Your task to perform on an android device: stop showing notifications on the lock screen Image 0: 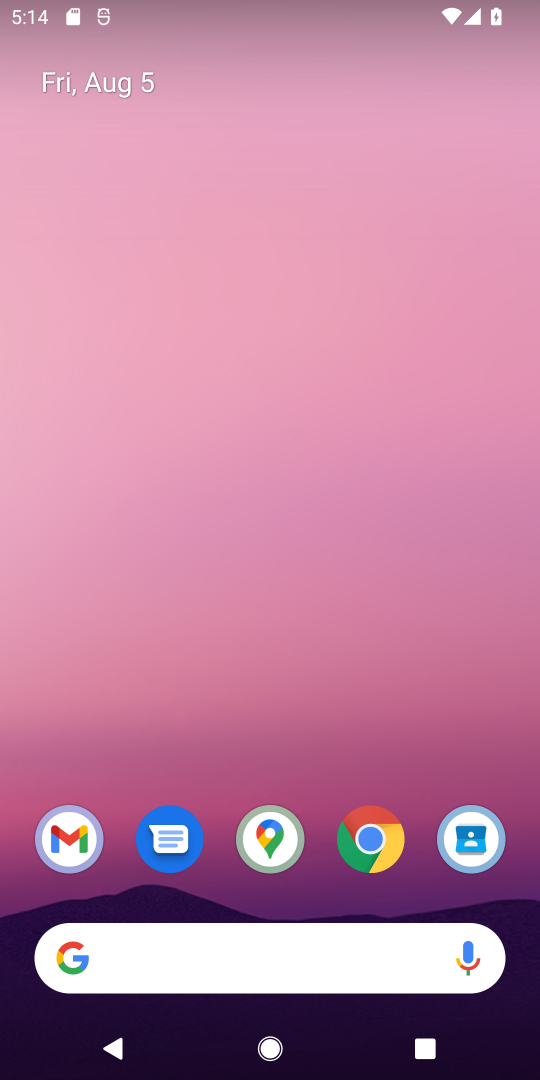
Step 0: press home button
Your task to perform on an android device: stop showing notifications on the lock screen Image 1: 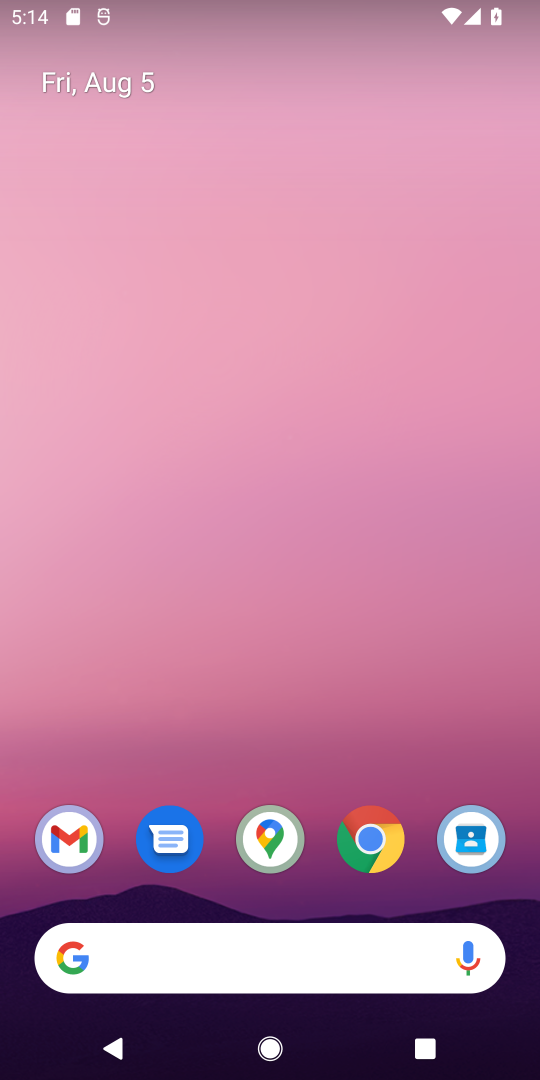
Step 1: drag from (305, 716) to (327, 58)
Your task to perform on an android device: stop showing notifications on the lock screen Image 2: 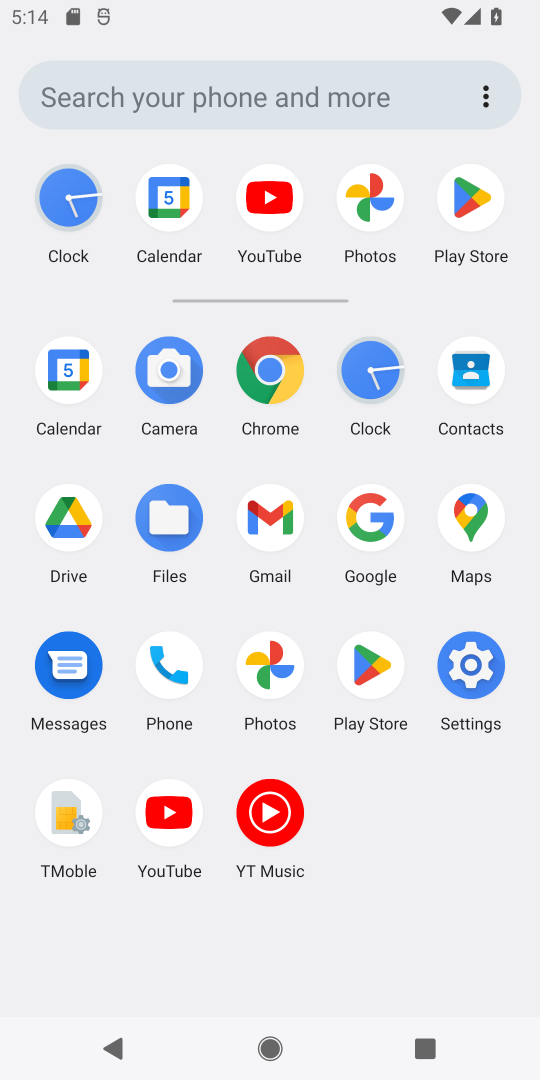
Step 2: click (436, 698)
Your task to perform on an android device: stop showing notifications on the lock screen Image 3: 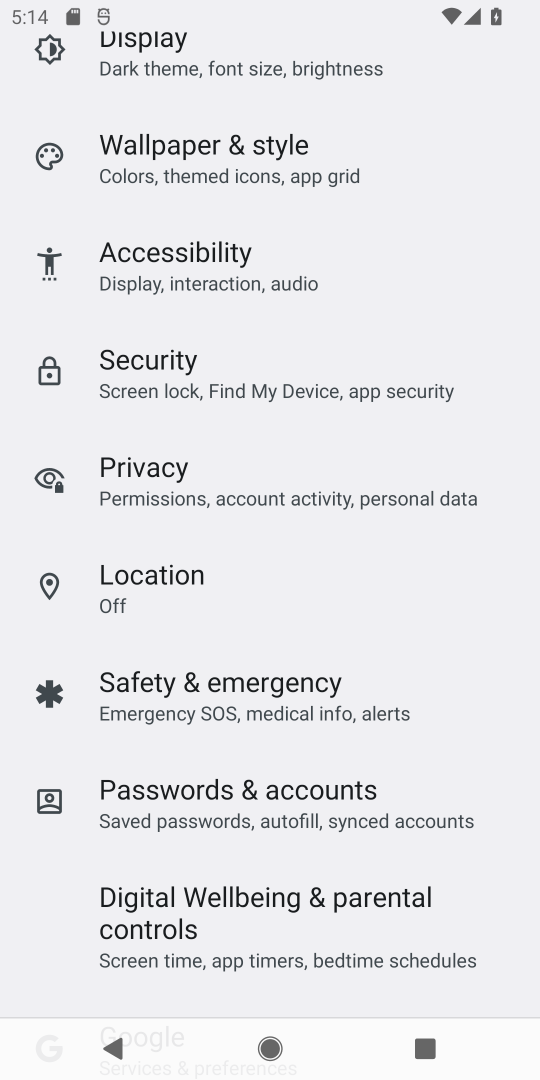
Step 3: drag from (319, 250) to (384, 972)
Your task to perform on an android device: stop showing notifications on the lock screen Image 4: 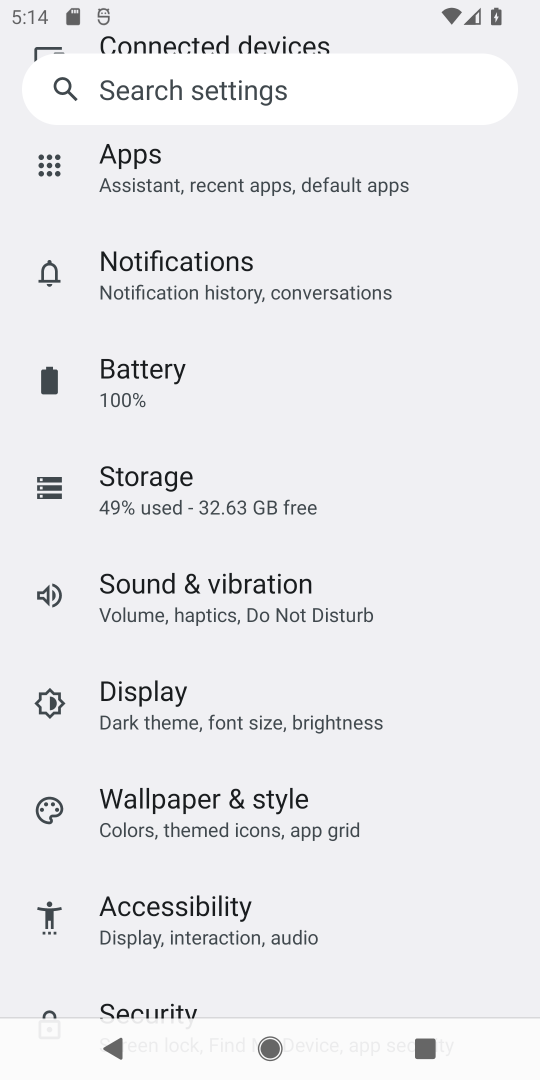
Step 4: drag from (250, 265) to (255, 918)
Your task to perform on an android device: stop showing notifications on the lock screen Image 5: 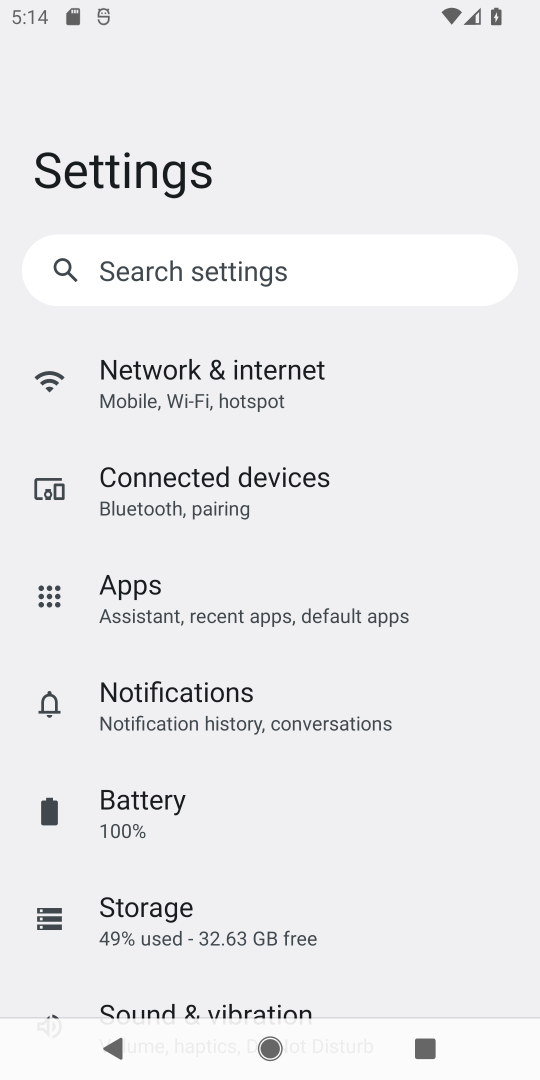
Step 5: click (196, 740)
Your task to perform on an android device: stop showing notifications on the lock screen Image 6: 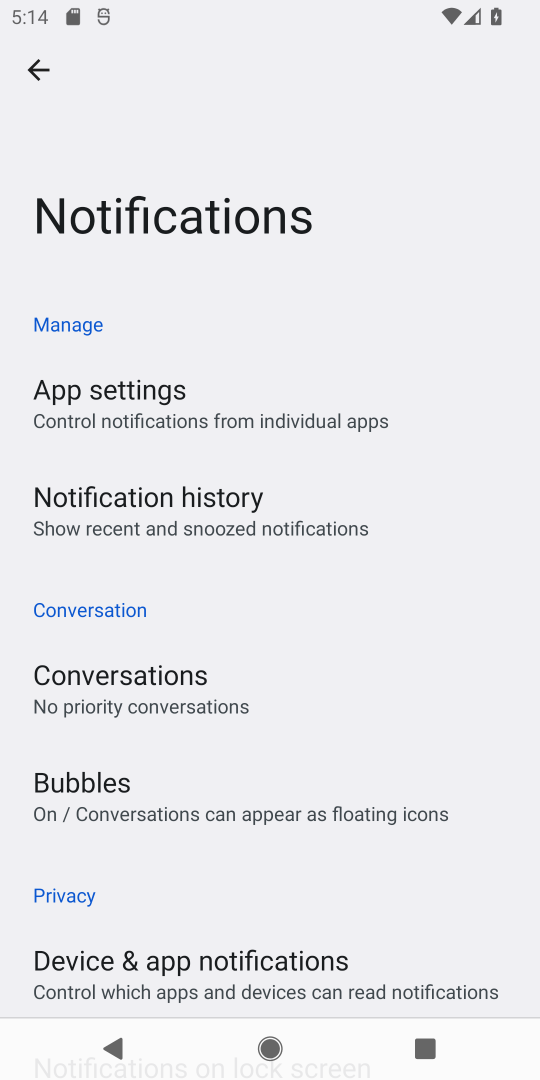
Step 6: drag from (255, 958) to (265, 459)
Your task to perform on an android device: stop showing notifications on the lock screen Image 7: 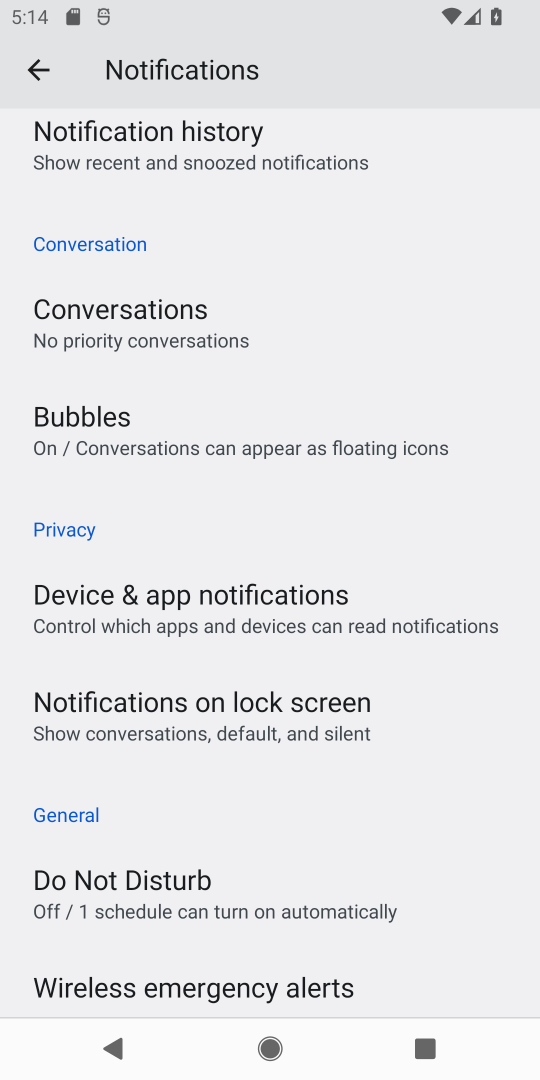
Step 7: click (253, 733)
Your task to perform on an android device: stop showing notifications on the lock screen Image 8: 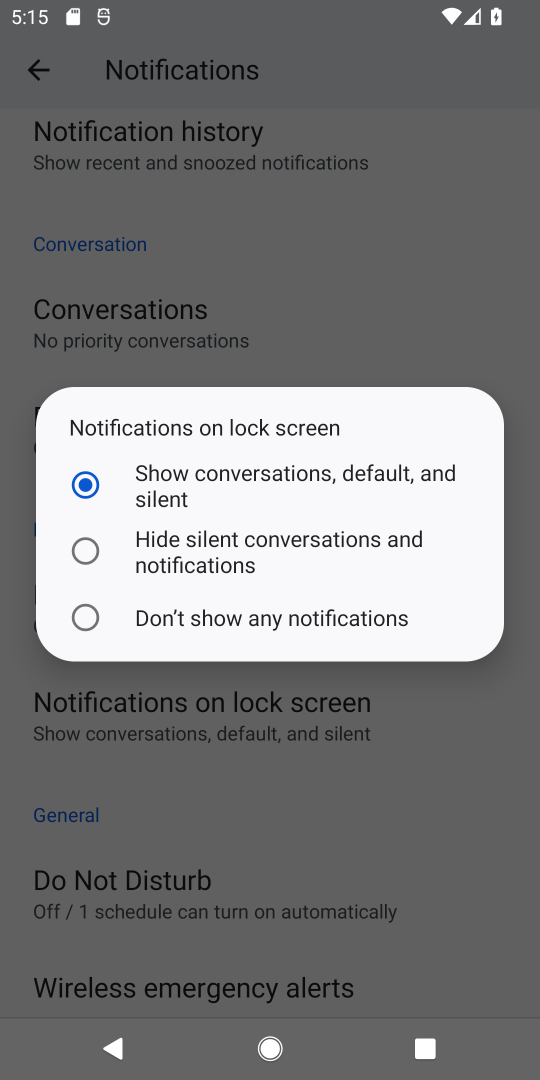
Step 8: click (215, 605)
Your task to perform on an android device: stop showing notifications on the lock screen Image 9: 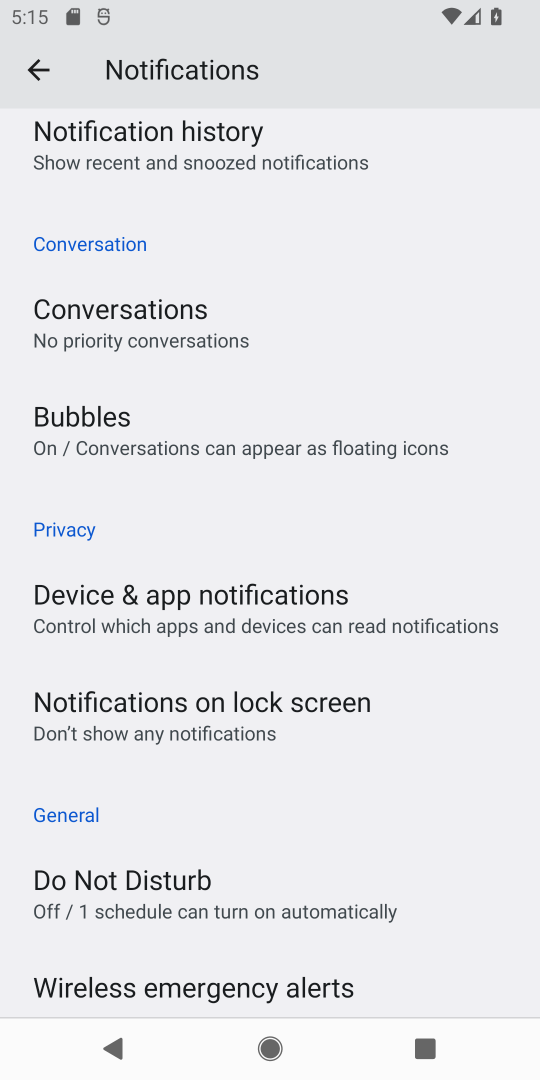
Step 9: task complete